Your task to perform on an android device: Check the news Image 0: 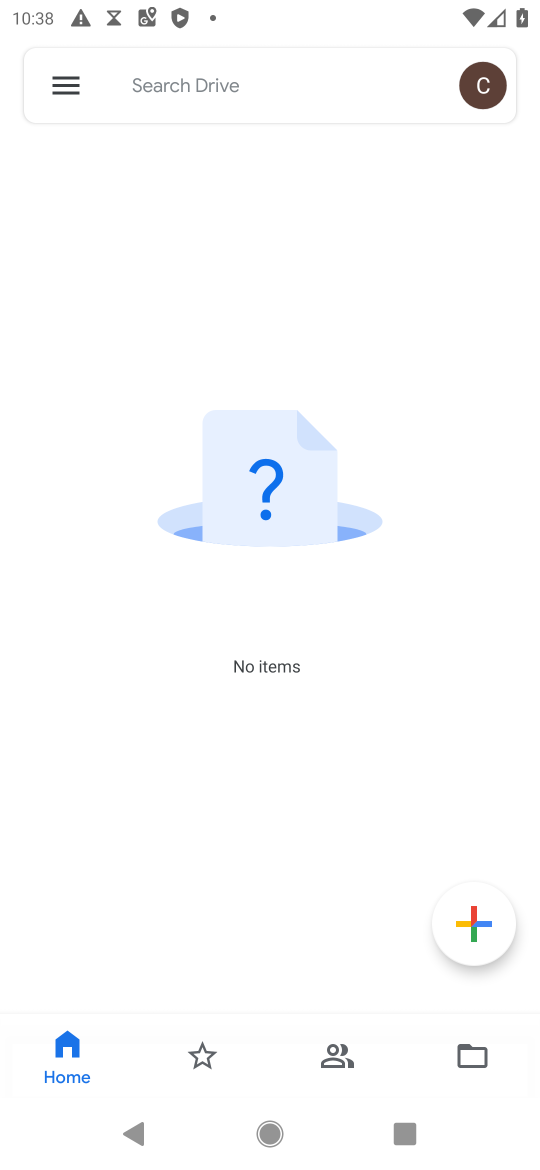
Step 0: press home button
Your task to perform on an android device: Check the news Image 1: 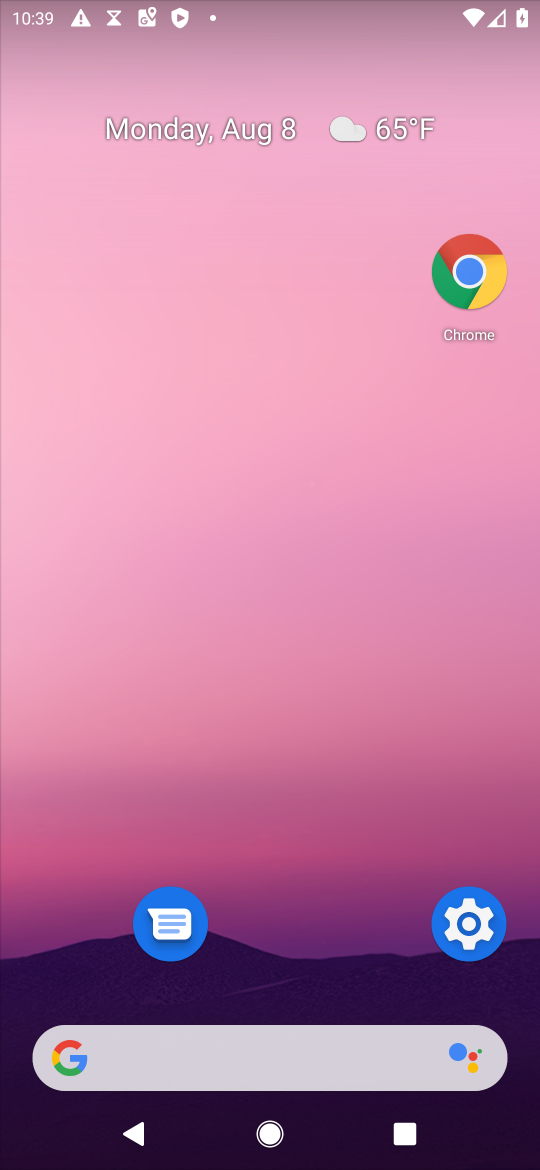
Step 1: drag from (337, 946) to (317, 76)
Your task to perform on an android device: Check the news Image 2: 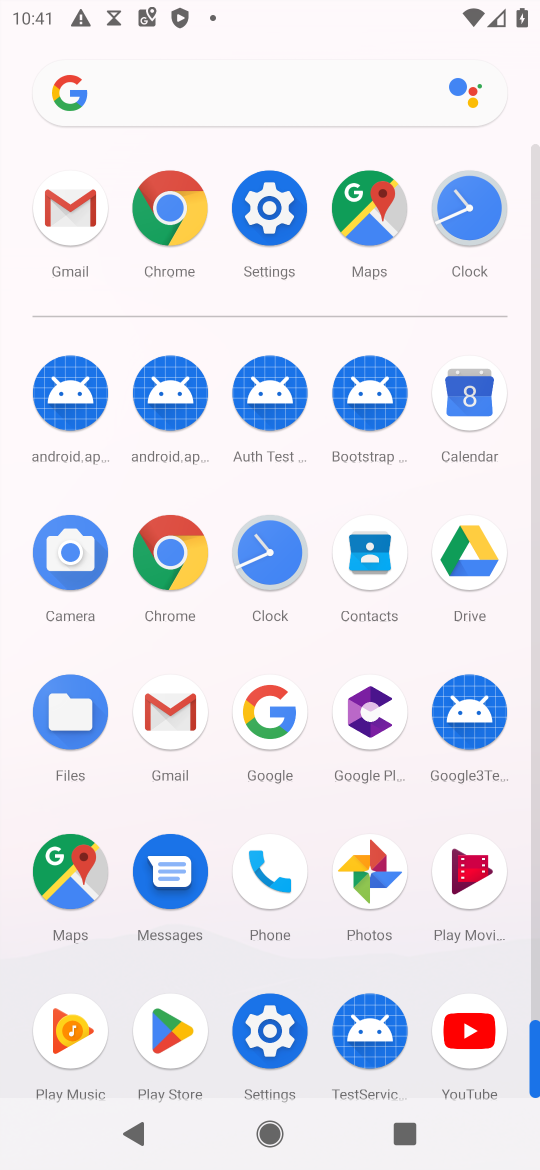
Step 2: click (161, 586)
Your task to perform on an android device: Check the news Image 3: 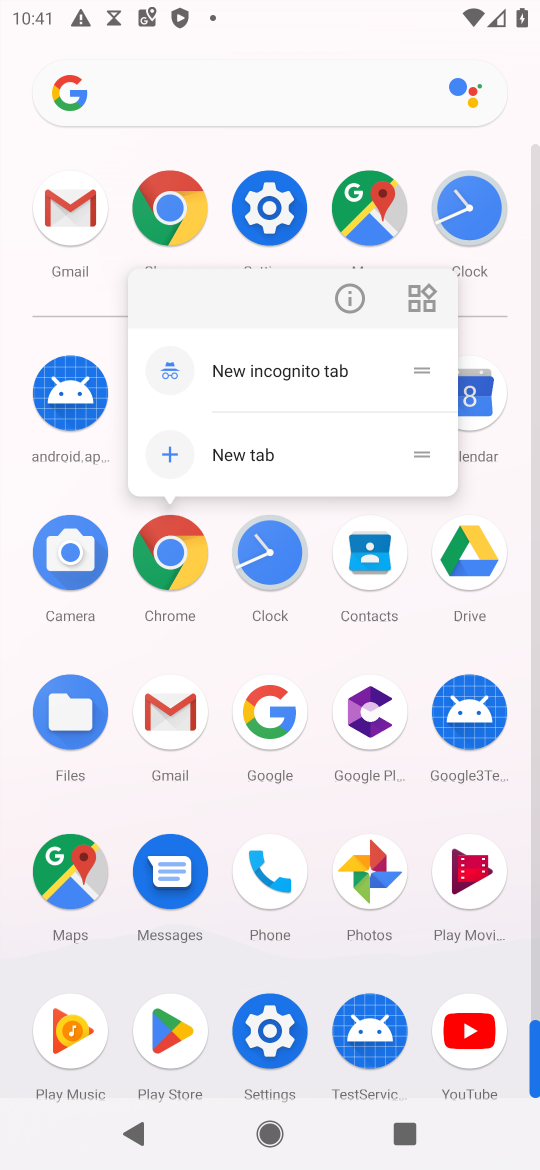
Step 3: click (184, 548)
Your task to perform on an android device: Check the news Image 4: 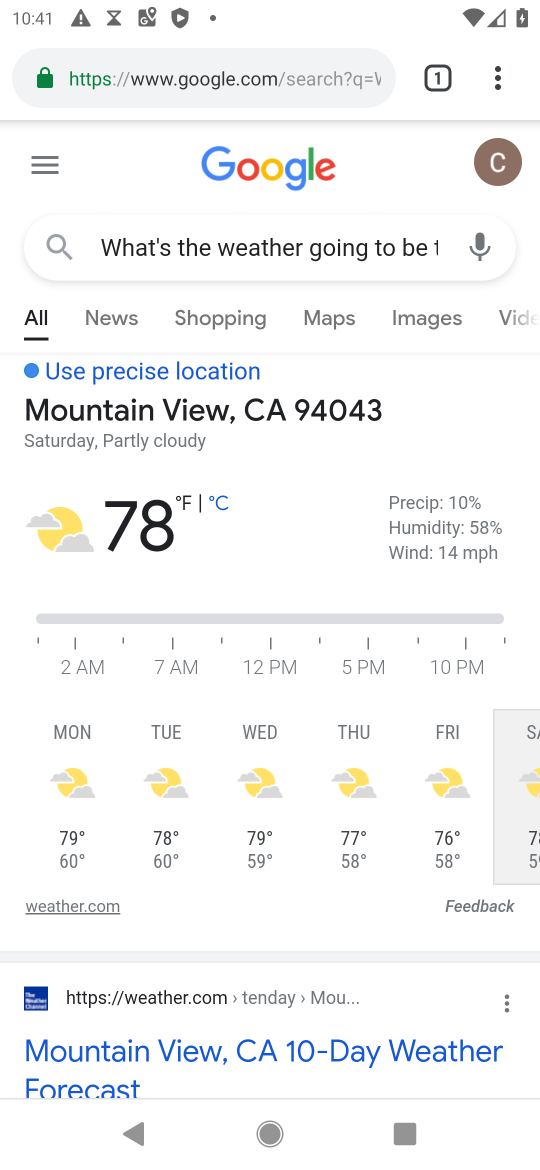
Step 4: click (94, 88)
Your task to perform on an android device: Check the news Image 5: 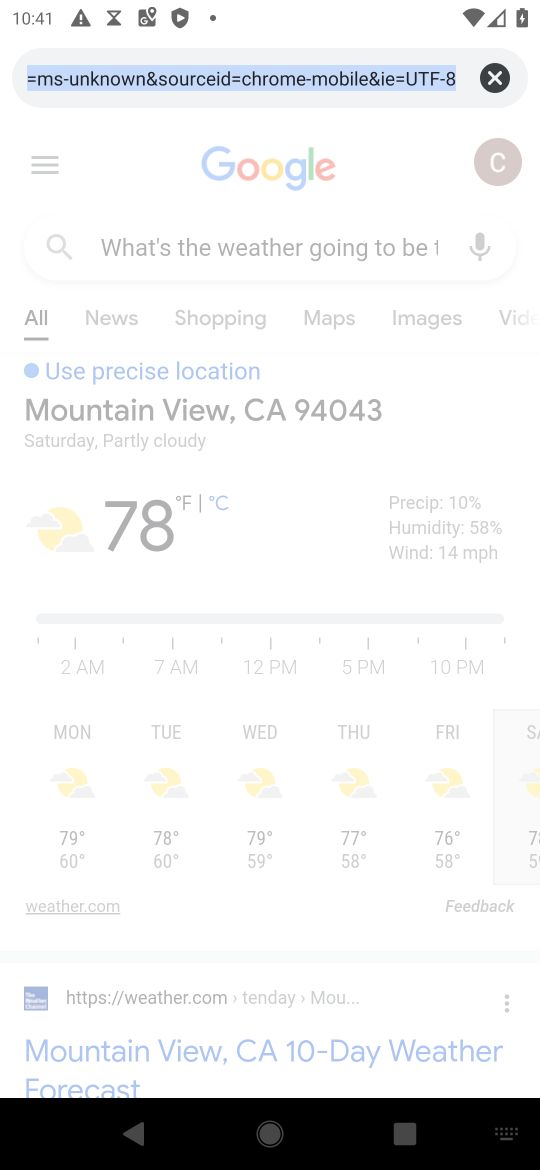
Step 5: type "Check the news"
Your task to perform on an android device: Check the news Image 6: 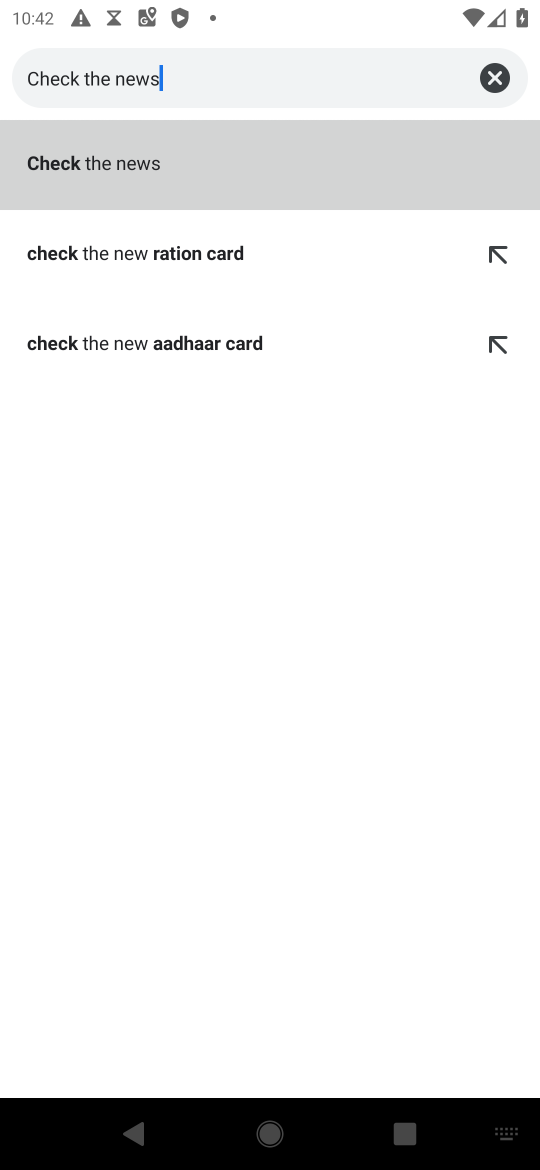
Step 6: type ""
Your task to perform on an android device: Check the news Image 7: 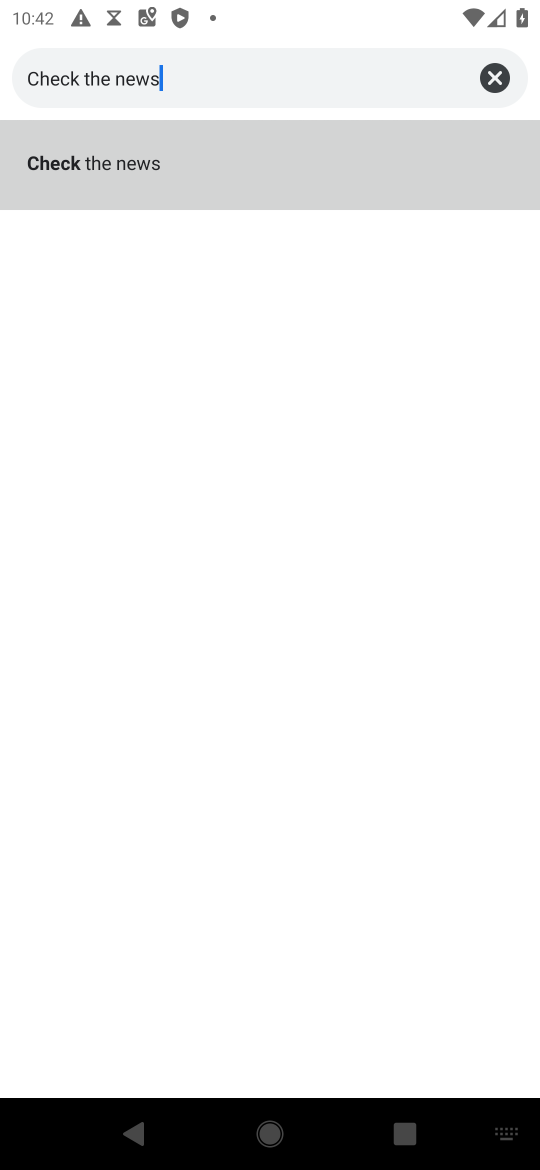
Step 7: click (44, 159)
Your task to perform on an android device: Check the news Image 8: 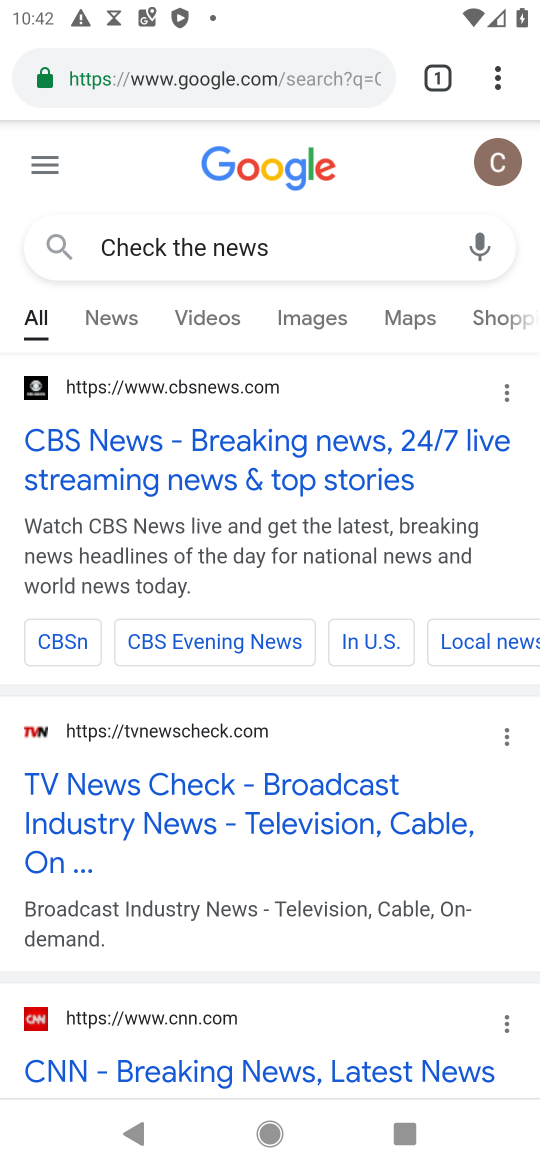
Step 8: task complete